Your task to perform on an android device: turn notification dots off Image 0: 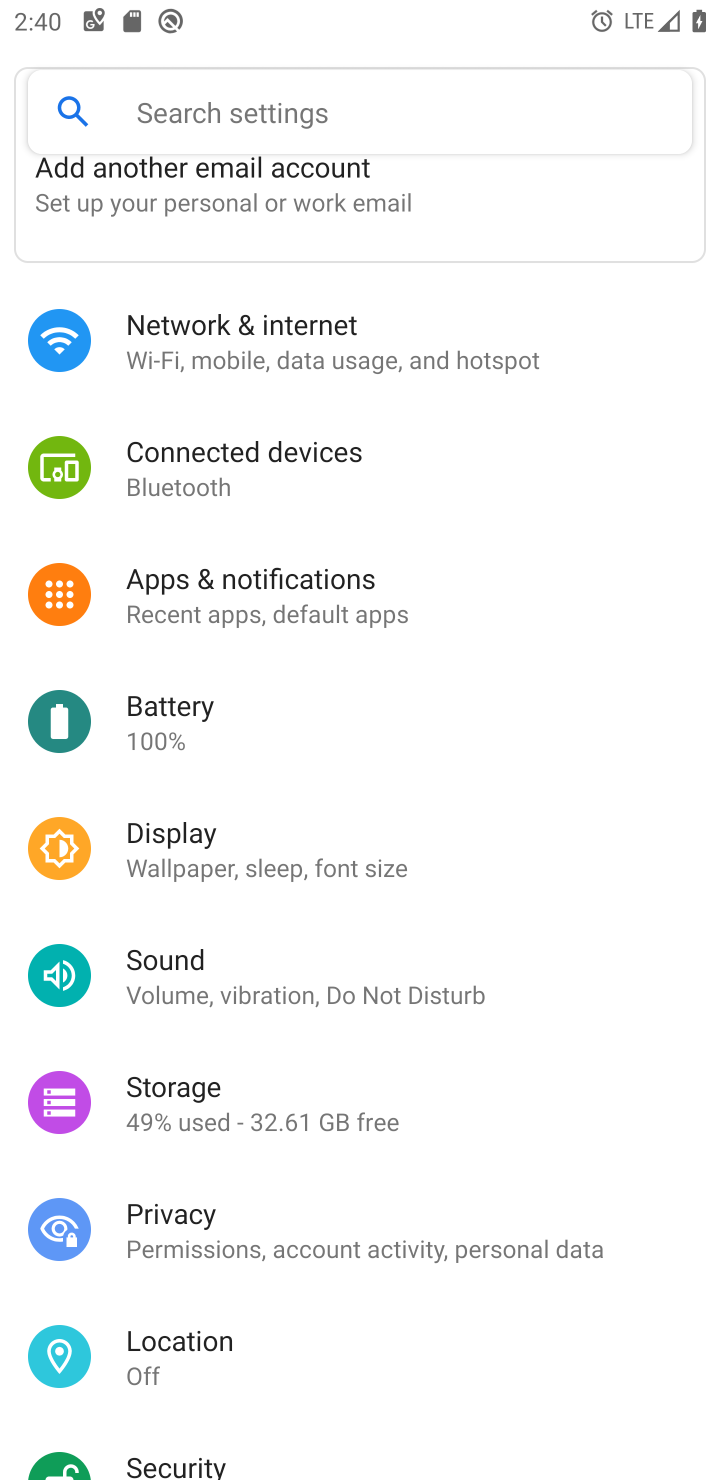
Step 0: press home button
Your task to perform on an android device: turn notification dots off Image 1: 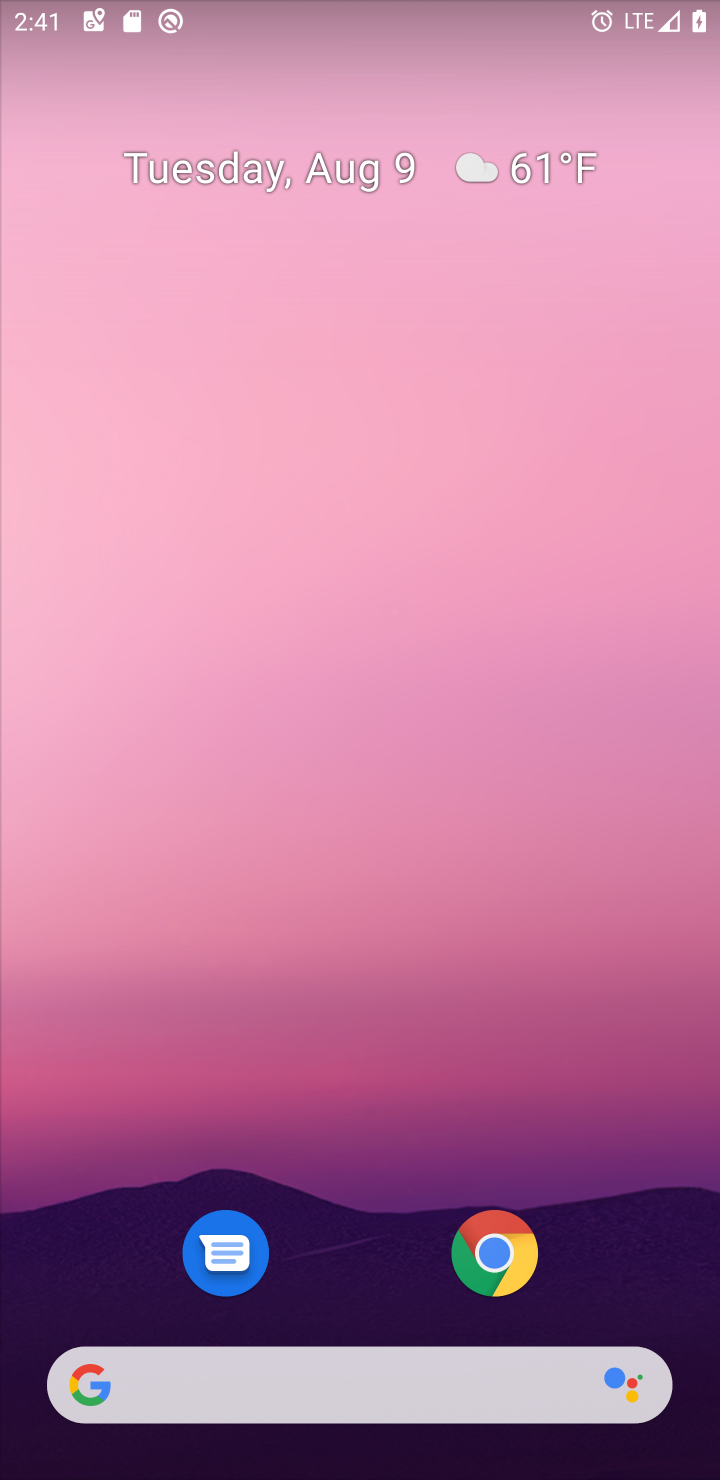
Step 1: drag from (653, 1256) to (316, 41)
Your task to perform on an android device: turn notification dots off Image 2: 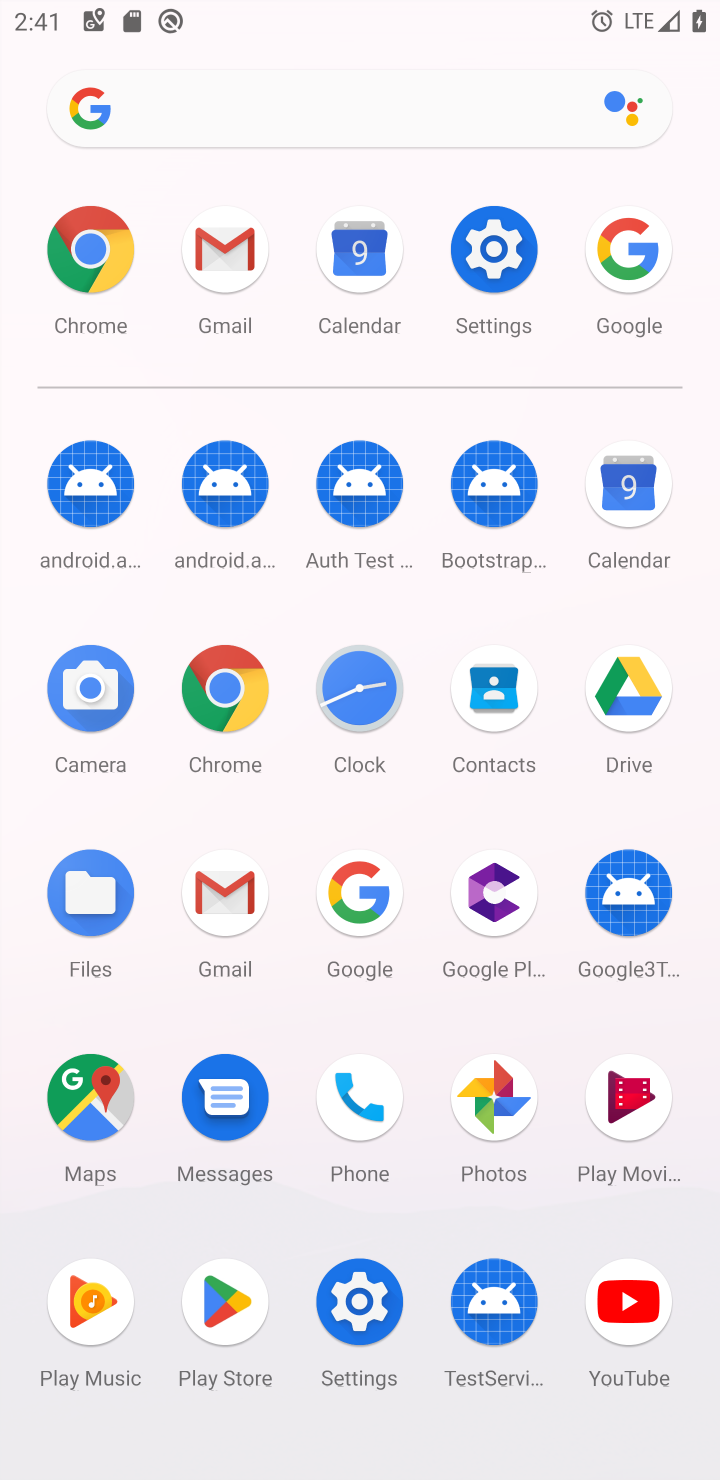
Step 2: click (354, 1338)
Your task to perform on an android device: turn notification dots off Image 3: 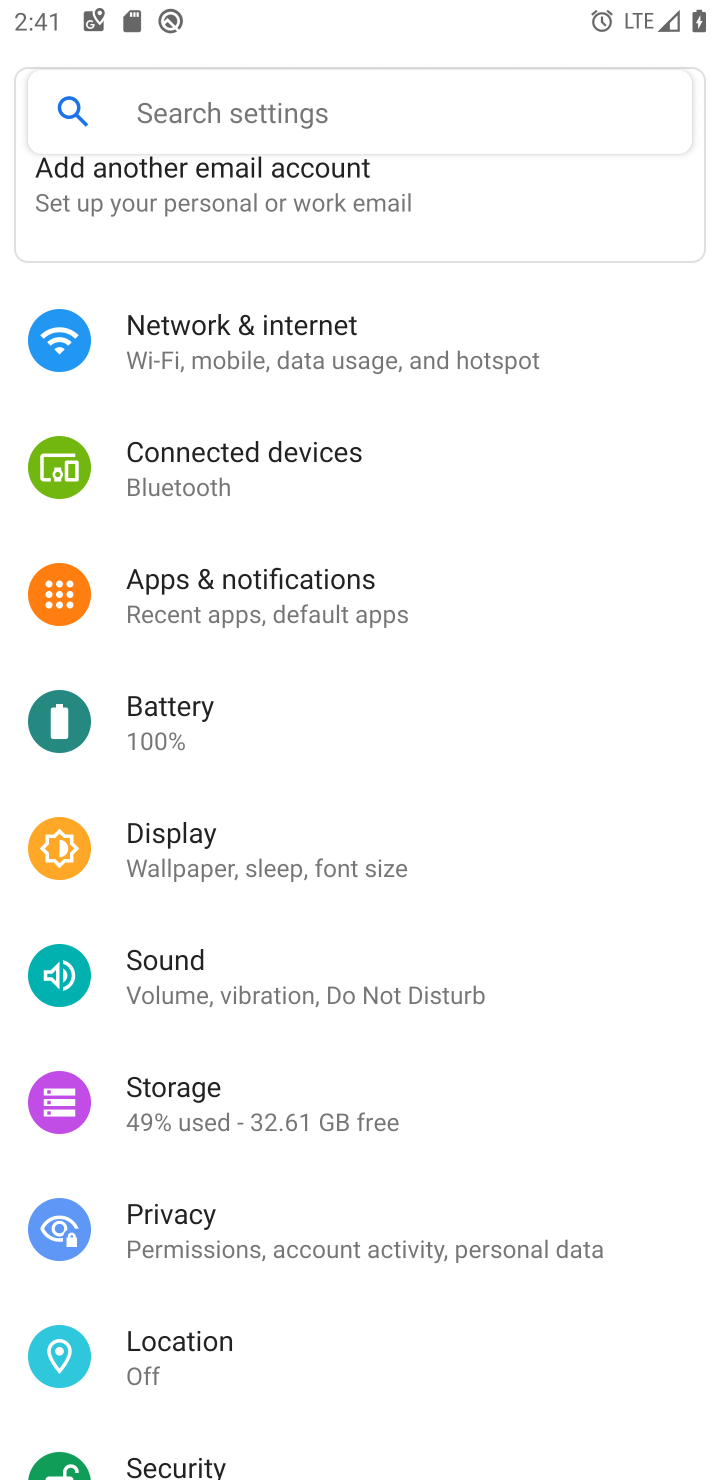
Step 3: click (258, 640)
Your task to perform on an android device: turn notification dots off Image 4: 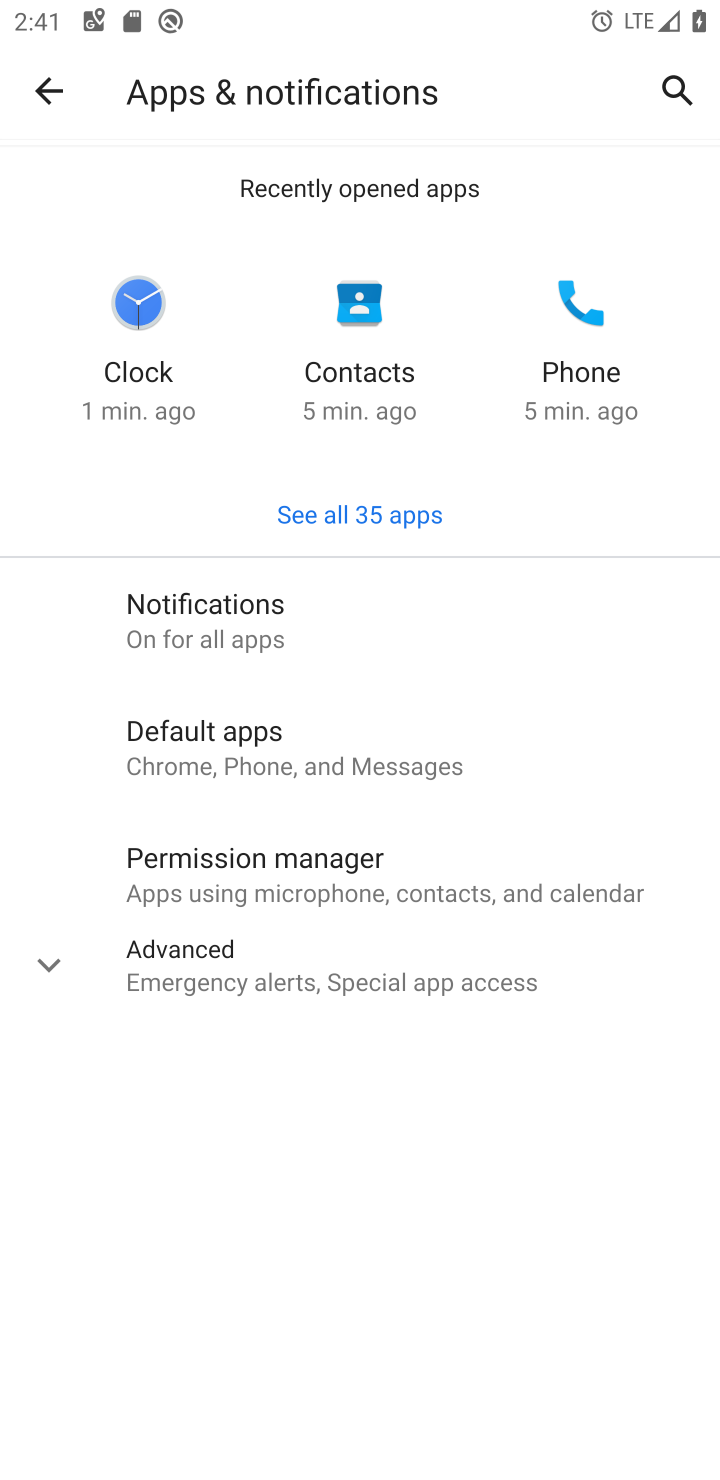
Step 4: click (251, 647)
Your task to perform on an android device: turn notification dots off Image 5: 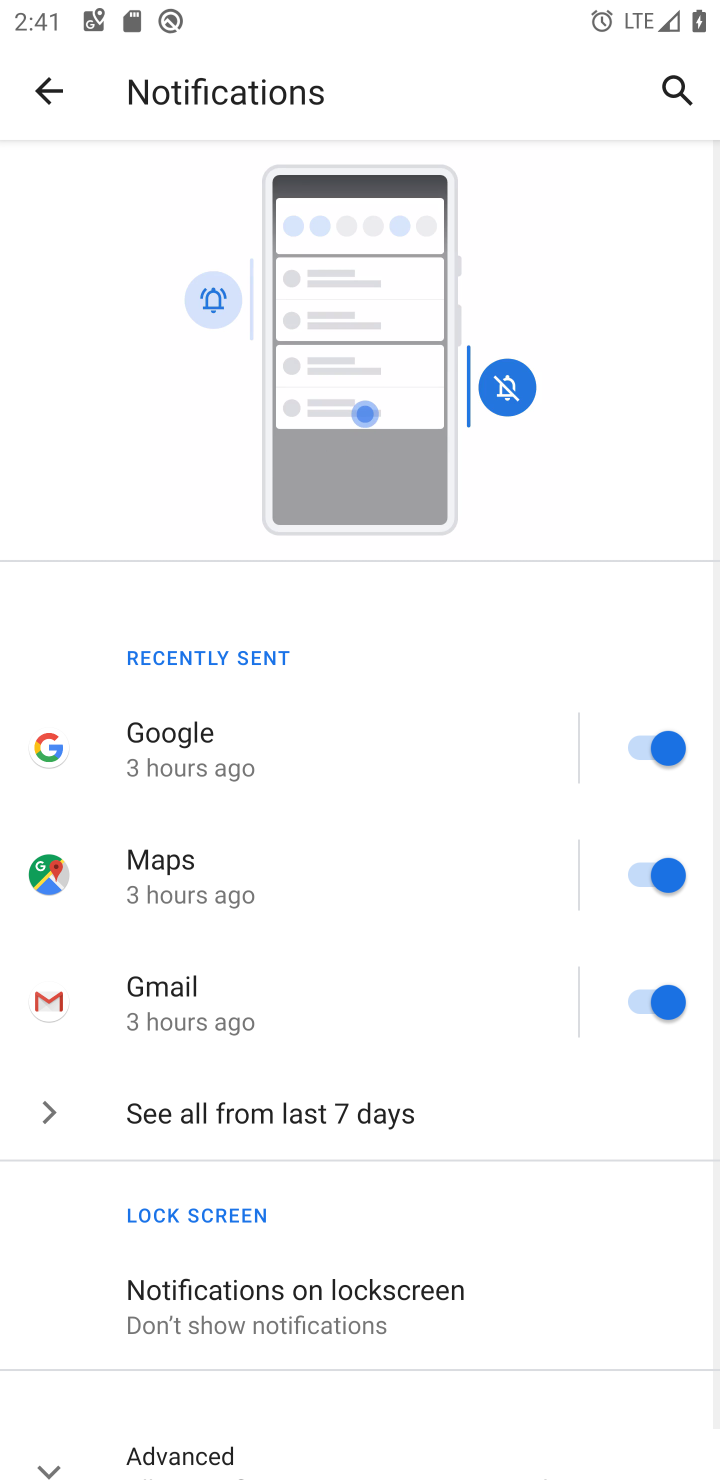
Step 5: click (185, 1422)
Your task to perform on an android device: turn notification dots off Image 6: 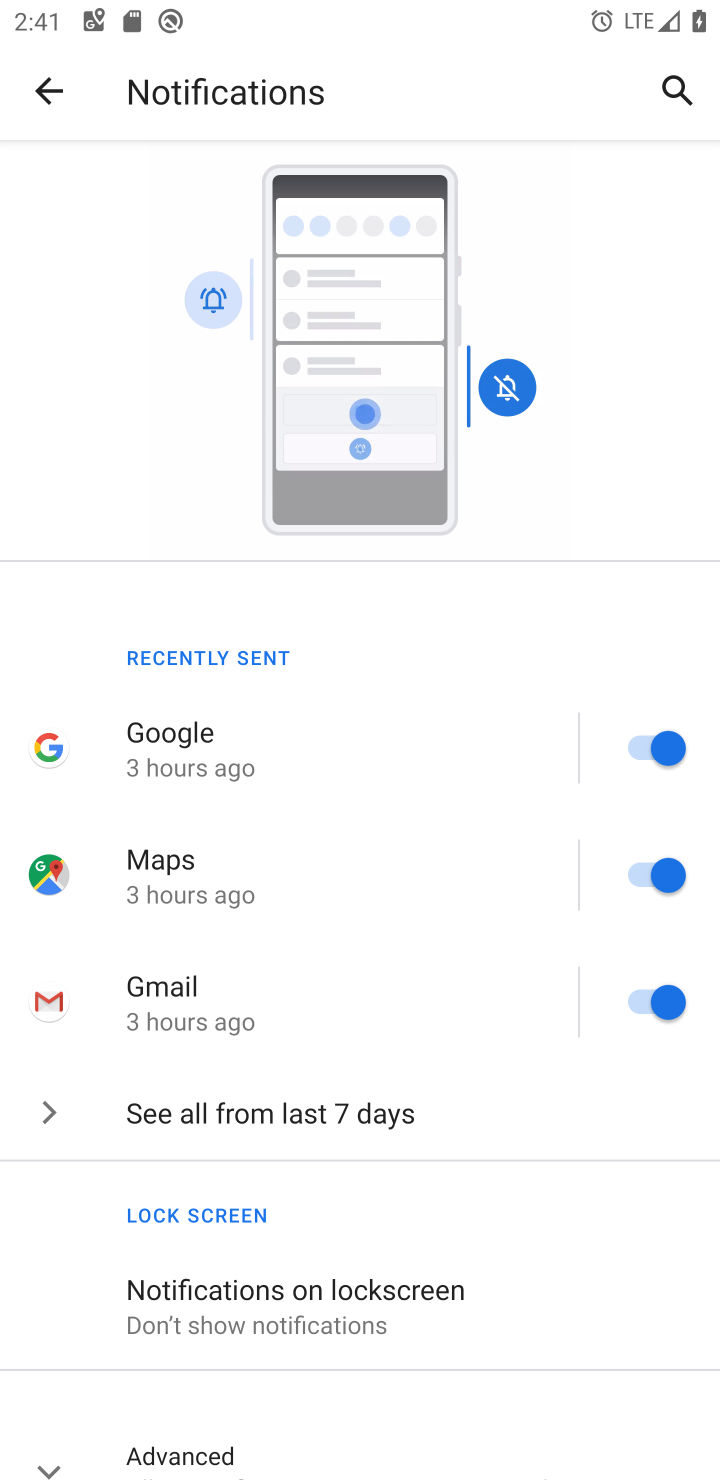
Step 6: drag from (240, 1285) to (171, 247)
Your task to perform on an android device: turn notification dots off Image 7: 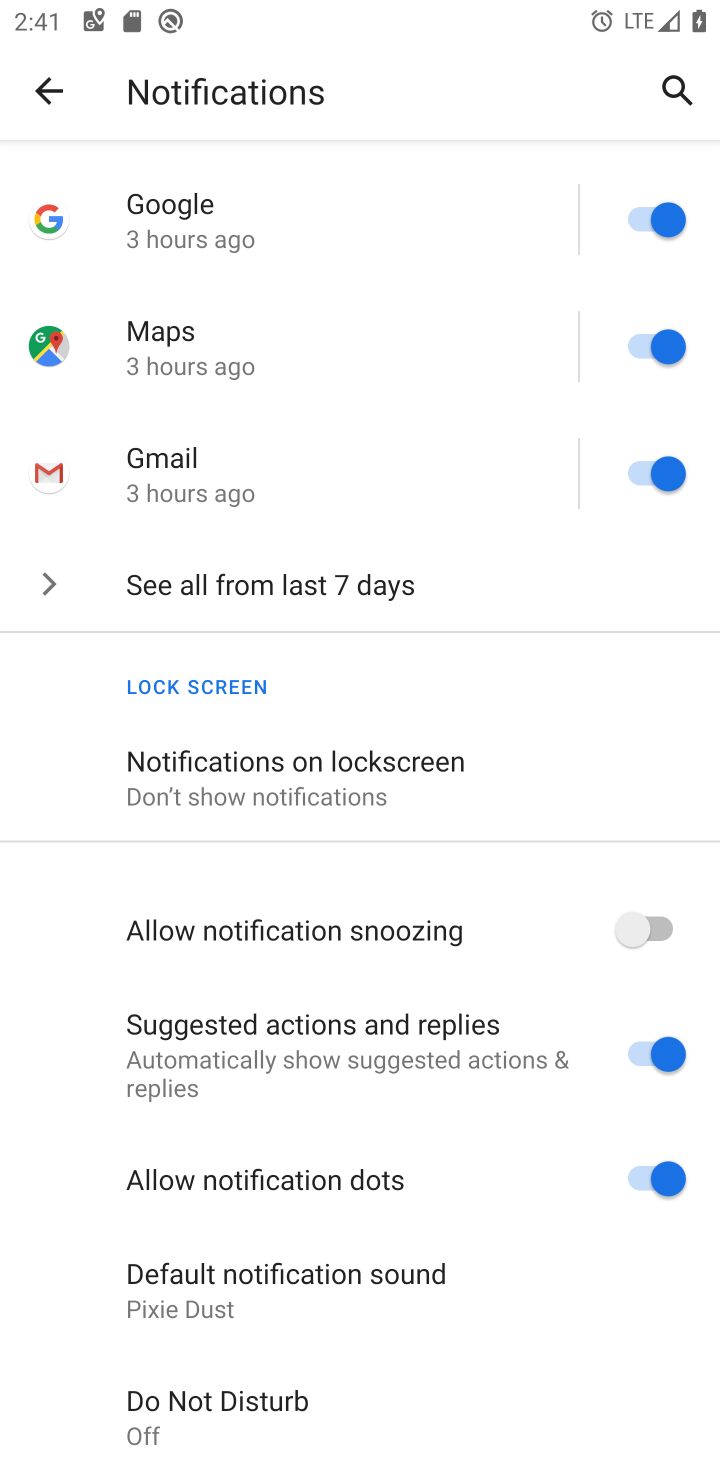
Step 7: click (510, 1170)
Your task to perform on an android device: turn notification dots off Image 8: 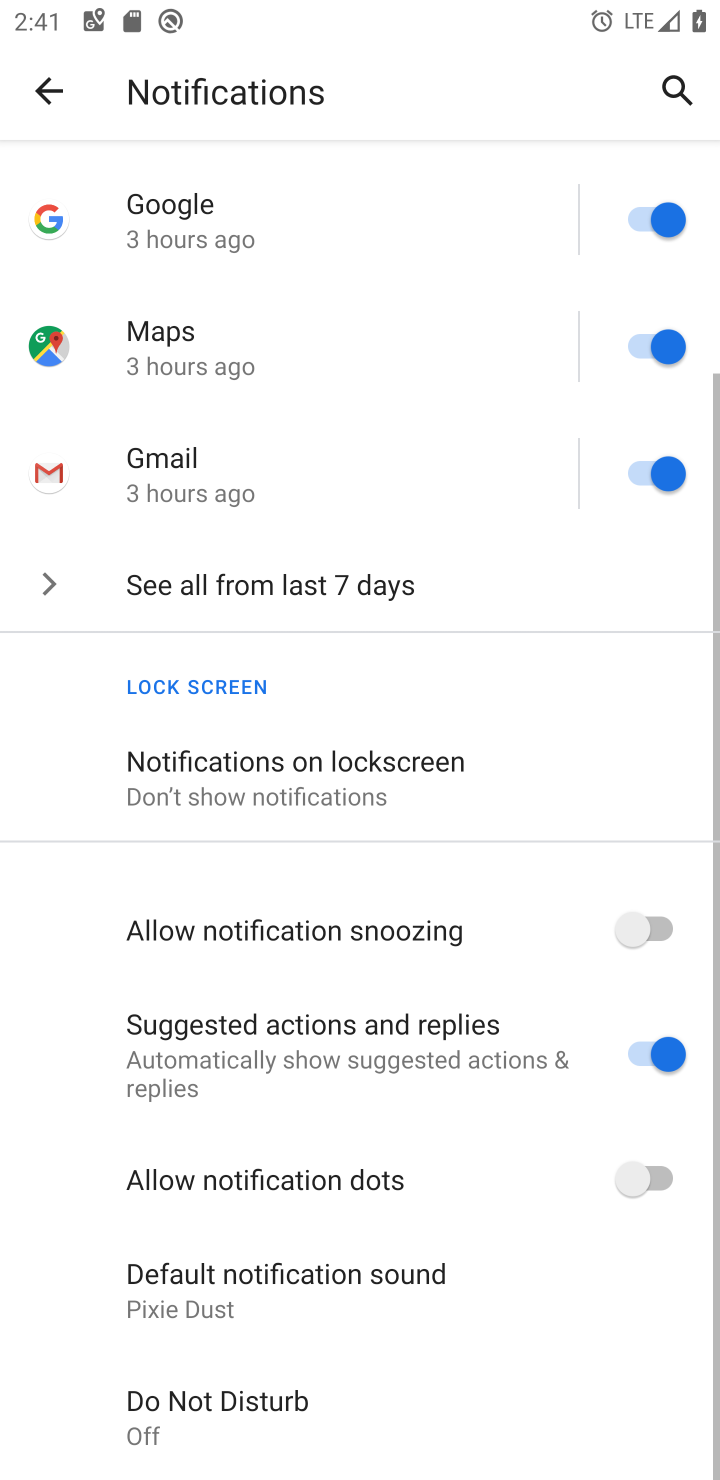
Step 8: task complete